Your task to perform on an android device: Turn on the flashlight Image 0: 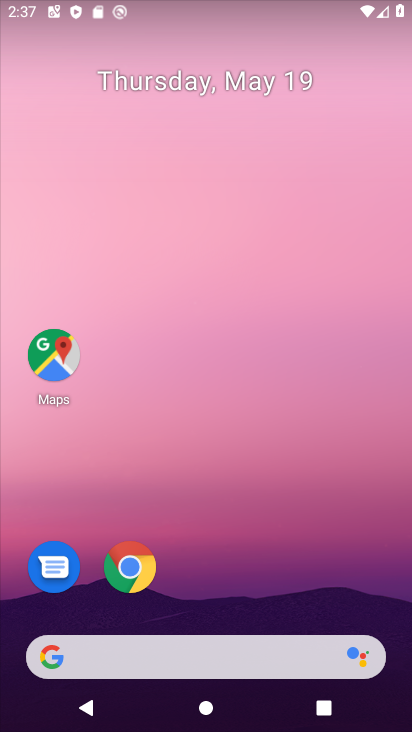
Step 0: drag from (236, 724) to (211, 38)
Your task to perform on an android device: Turn on the flashlight Image 1: 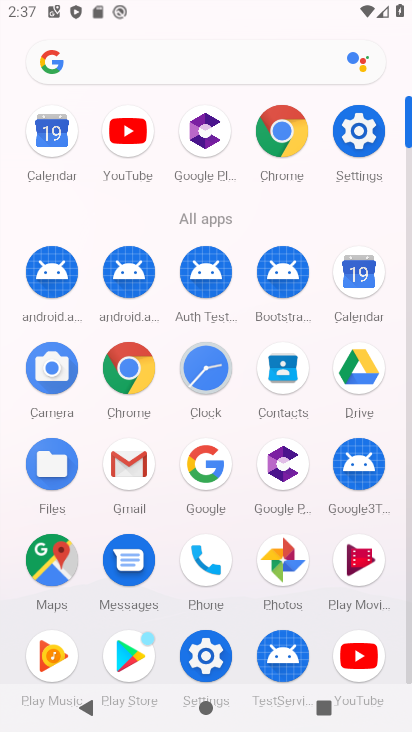
Step 1: click (365, 118)
Your task to perform on an android device: Turn on the flashlight Image 2: 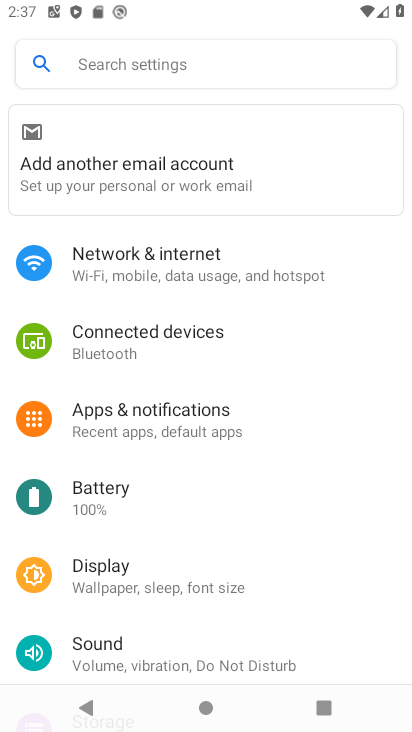
Step 2: task complete